Your task to perform on an android device: Go to Yahoo.com Image 0: 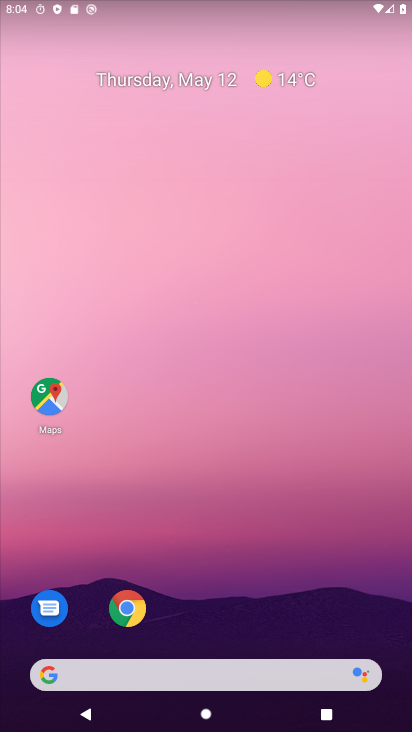
Step 0: click (121, 623)
Your task to perform on an android device: Go to Yahoo.com Image 1: 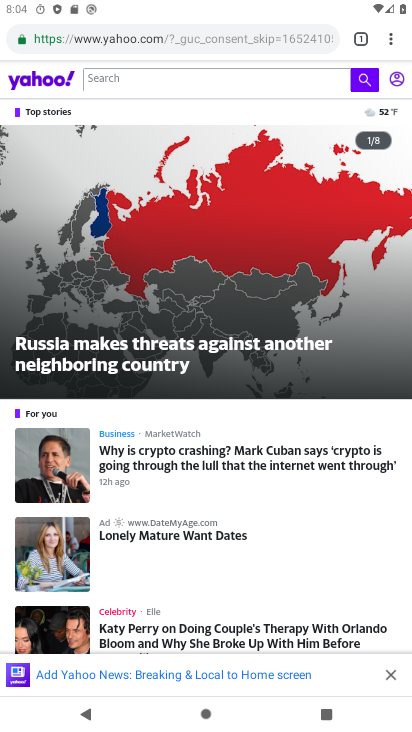
Step 1: task complete